Your task to perform on an android device: turn on the 12-hour format for clock Image 0: 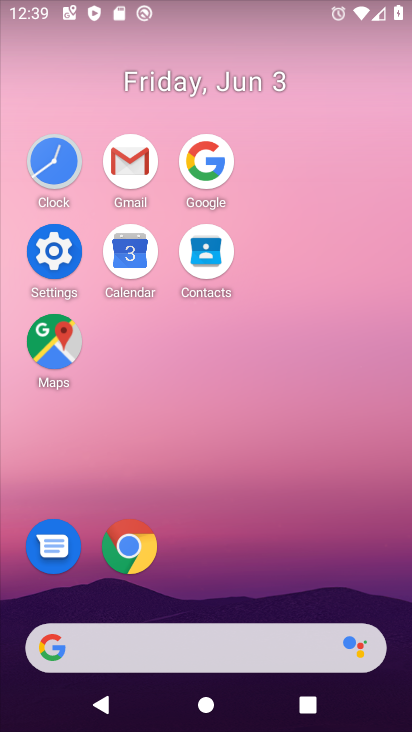
Step 0: click (76, 171)
Your task to perform on an android device: turn on the 12-hour format for clock Image 1: 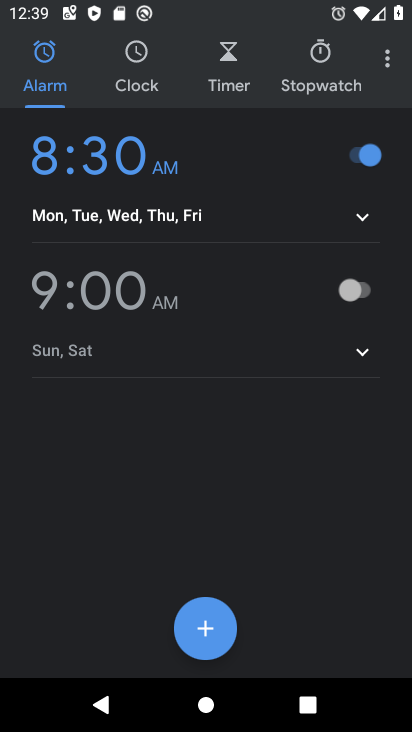
Step 1: click (392, 61)
Your task to perform on an android device: turn on the 12-hour format for clock Image 2: 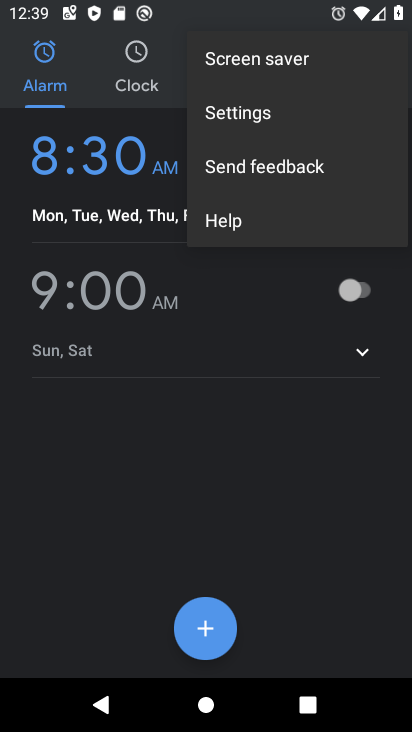
Step 2: click (269, 117)
Your task to perform on an android device: turn on the 12-hour format for clock Image 3: 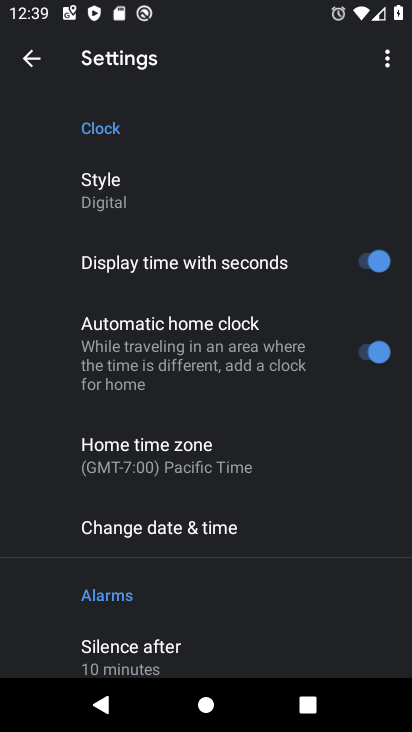
Step 3: drag from (258, 507) to (291, 190)
Your task to perform on an android device: turn on the 12-hour format for clock Image 4: 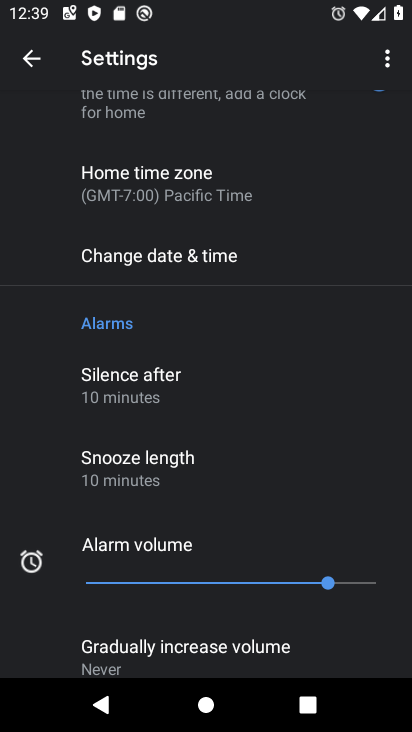
Step 4: click (270, 279)
Your task to perform on an android device: turn on the 12-hour format for clock Image 5: 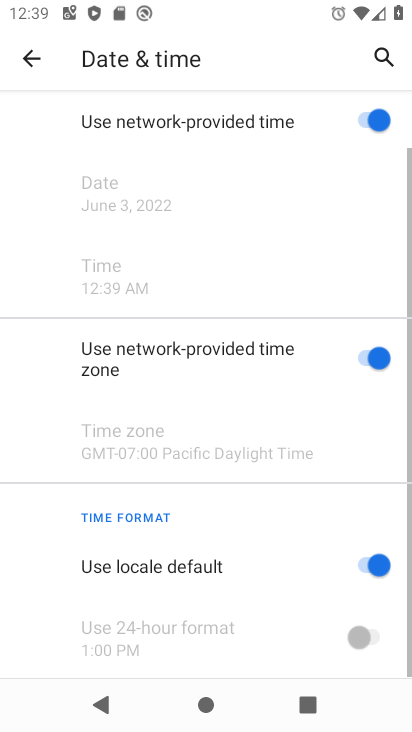
Step 5: task complete